Your task to perform on an android device: uninstall "Pandora - Music & Podcasts" Image 0: 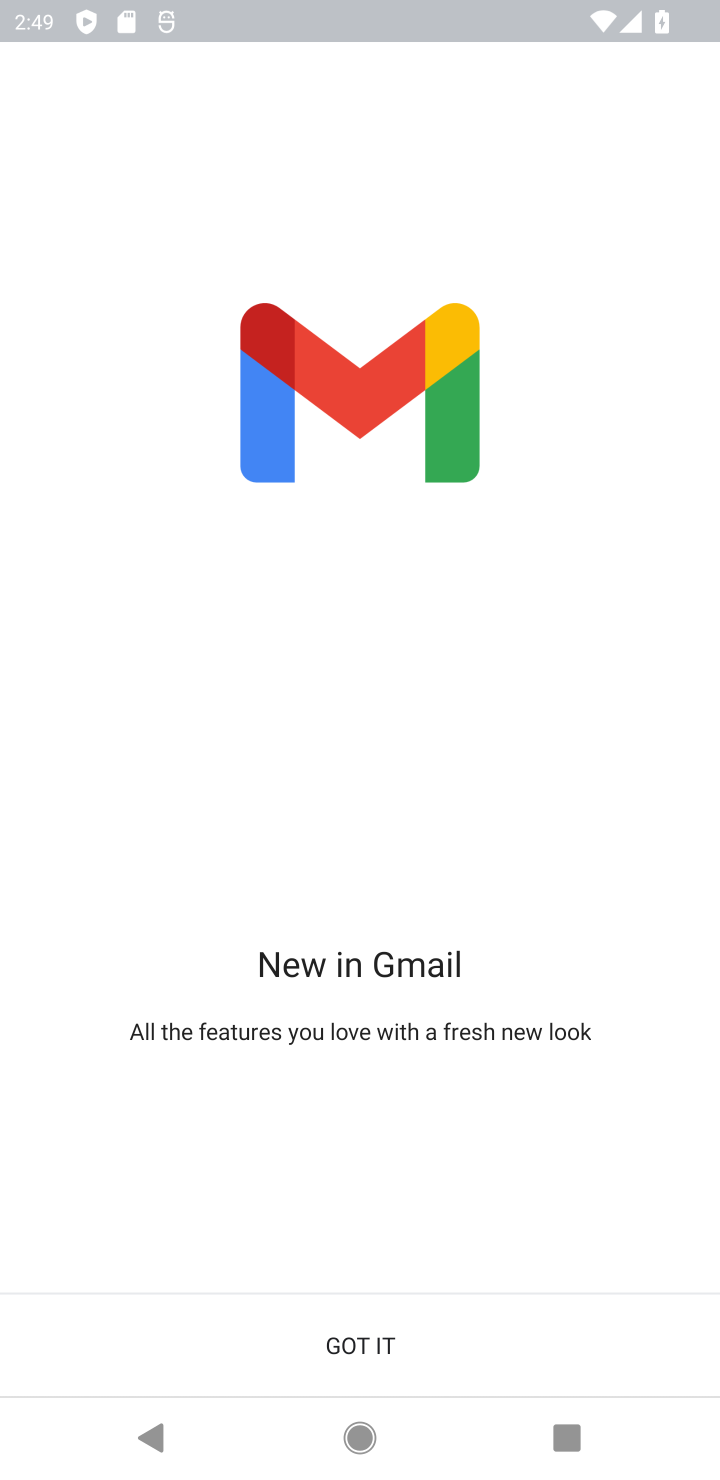
Step 0: press home button
Your task to perform on an android device: uninstall "Pandora - Music & Podcasts" Image 1: 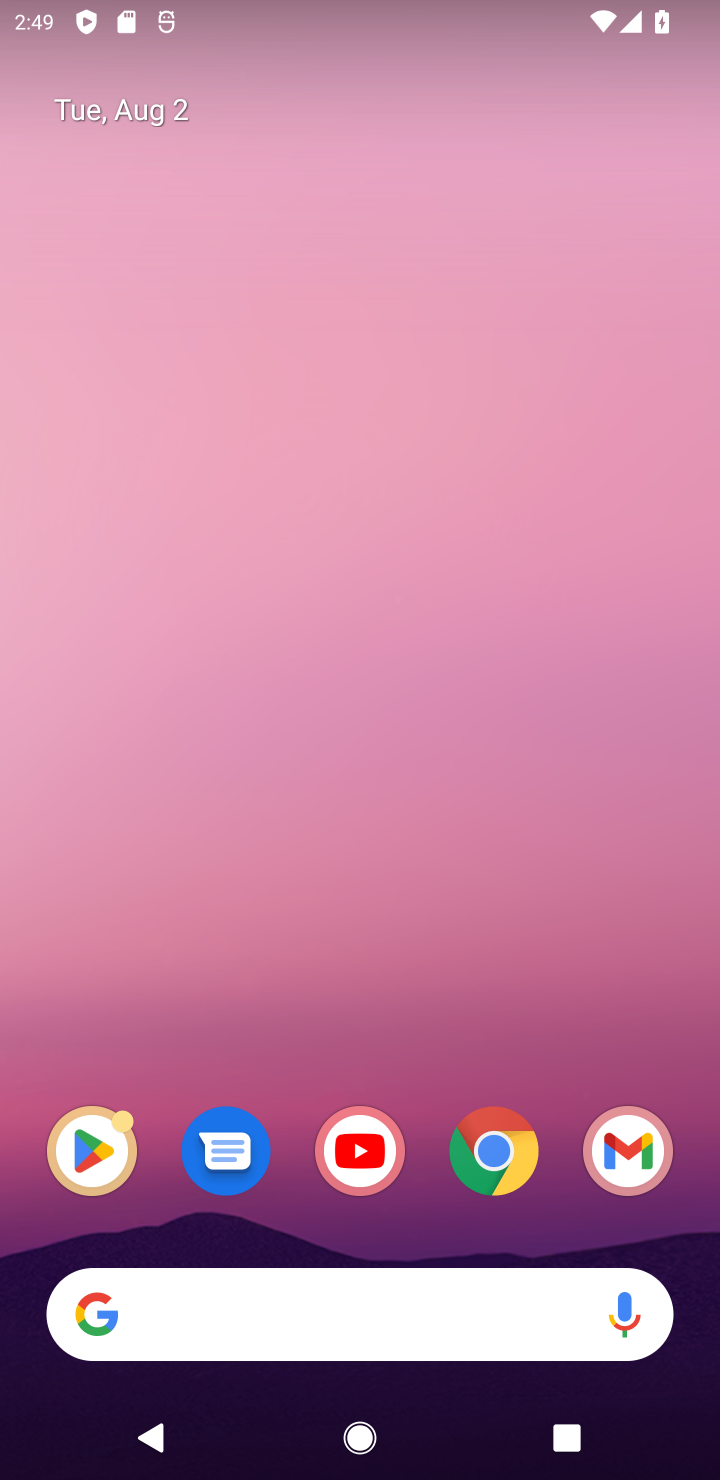
Step 1: drag from (409, 1368) to (387, 333)
Your task to perform on an android device: uninstall "Pandora - Music & Podcasts" Image 2: 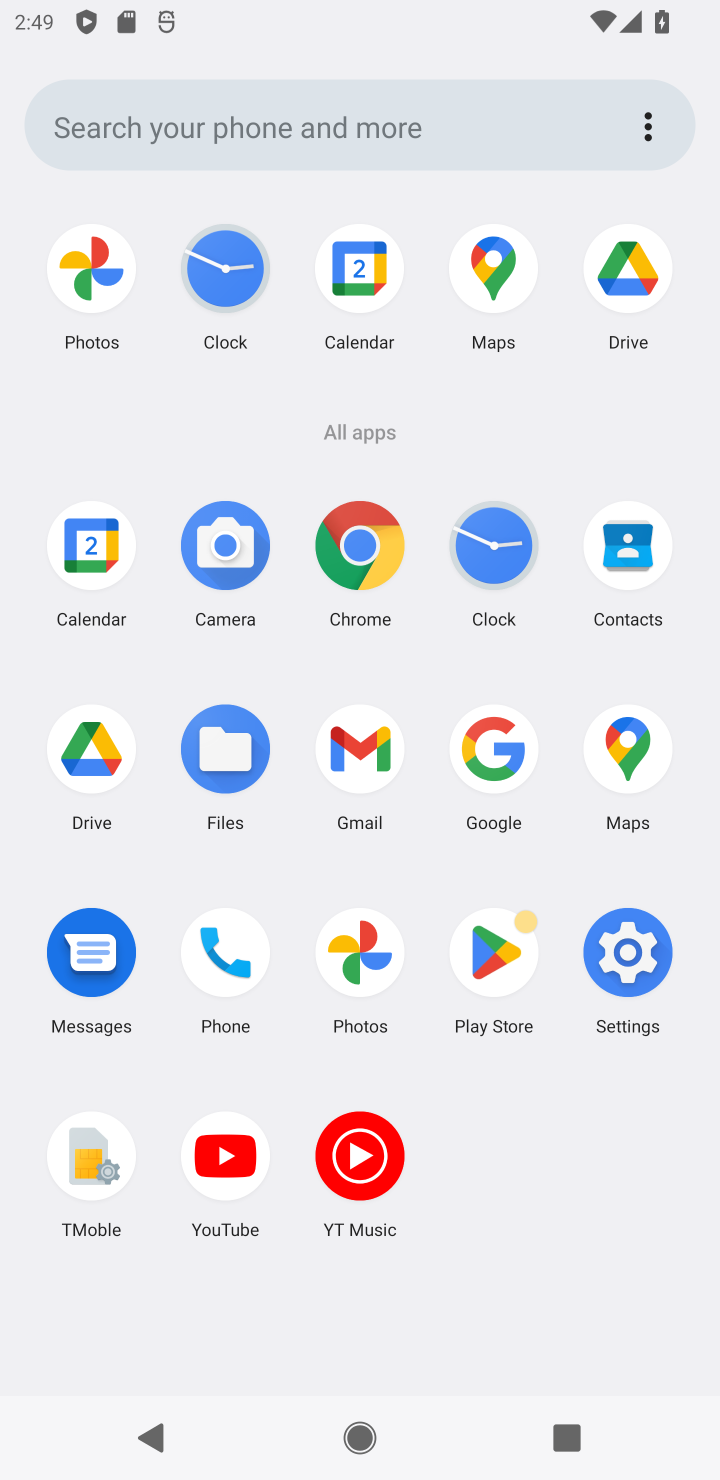
Step 2: click (487, 955)
Your task to perform on an android device: uninstall "Pandora - Music & Podcasts" Image 3: 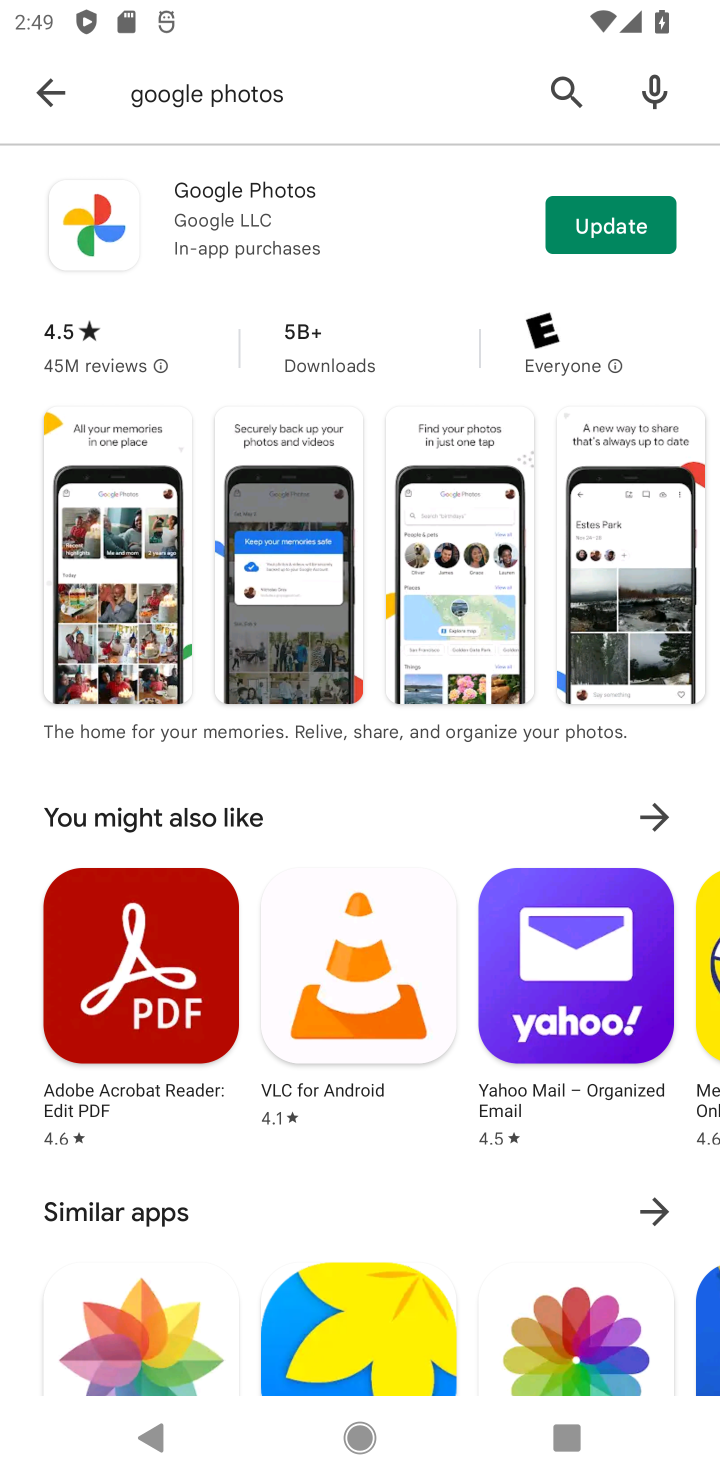
Step 3: click (559, 75)
Your task to perform on an android device: uninstall "Pandora - Music & Podcasts" Image 4: 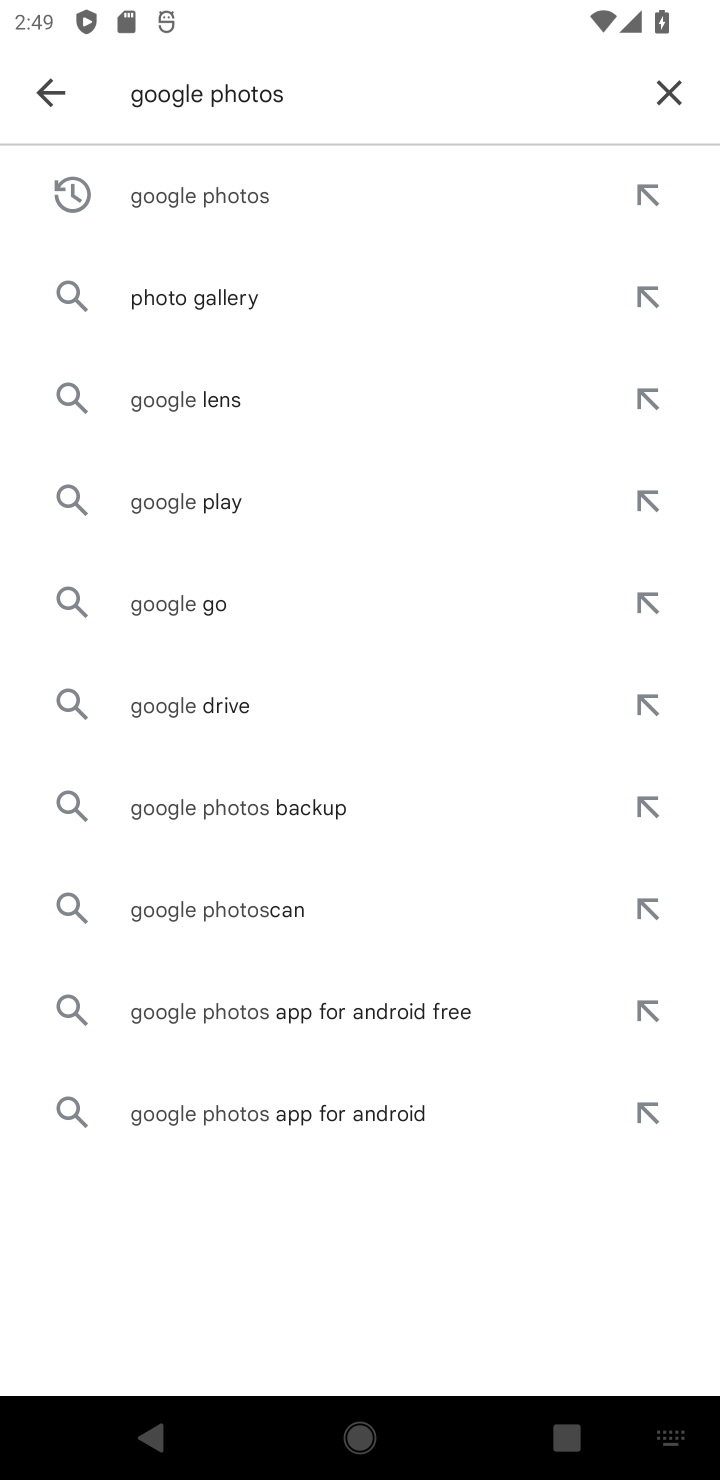
Step 4: click (666, 93)
Your task to perform on an android device: uninstall "Pandora - Music & Podcasts" Image 5: 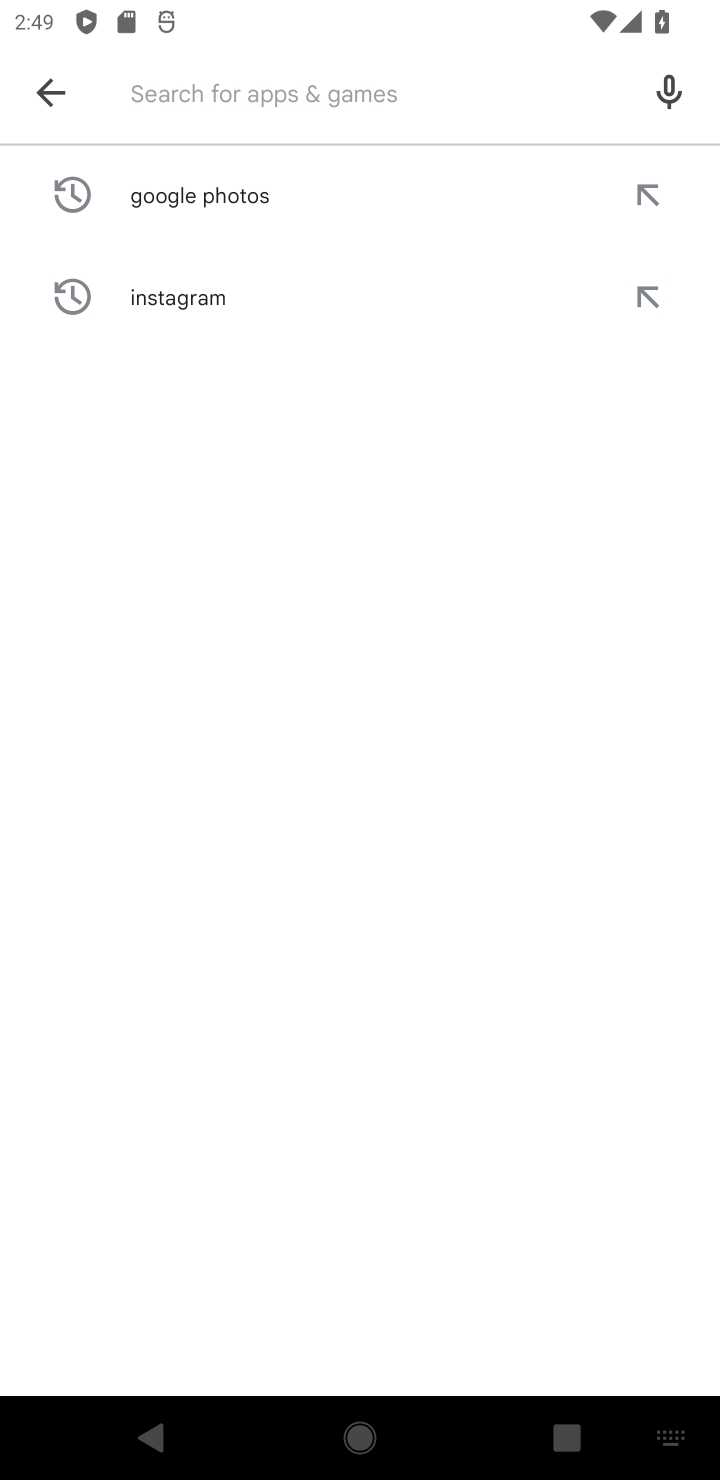
Step 5: type "Pandora - Music & Podcasts"
Your task to perform on an android device: uninstall "Pandora - Music & Podcasts" Image 6: 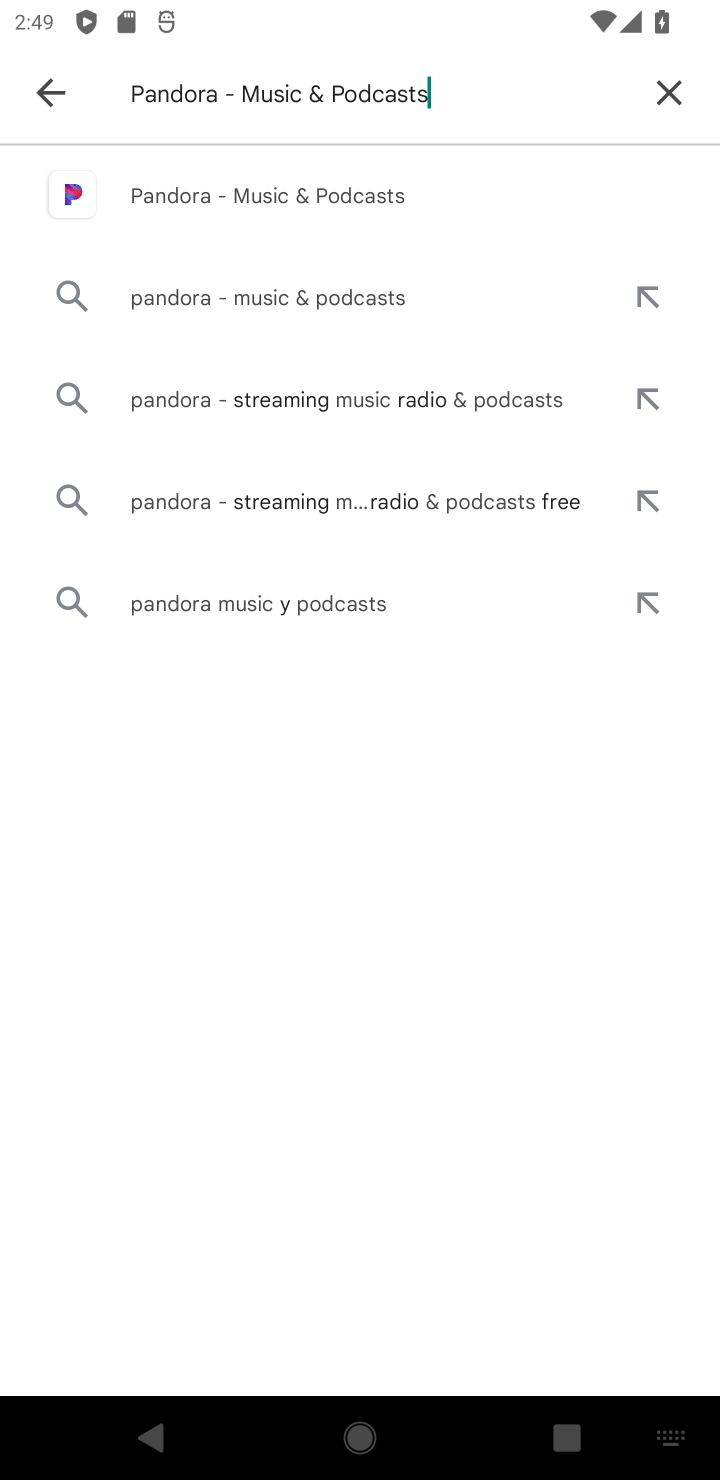
Step 6: click (292, 181)
Your task to perform on an android device: uninstall "Pandora - Music & Podcasts" Image 7: 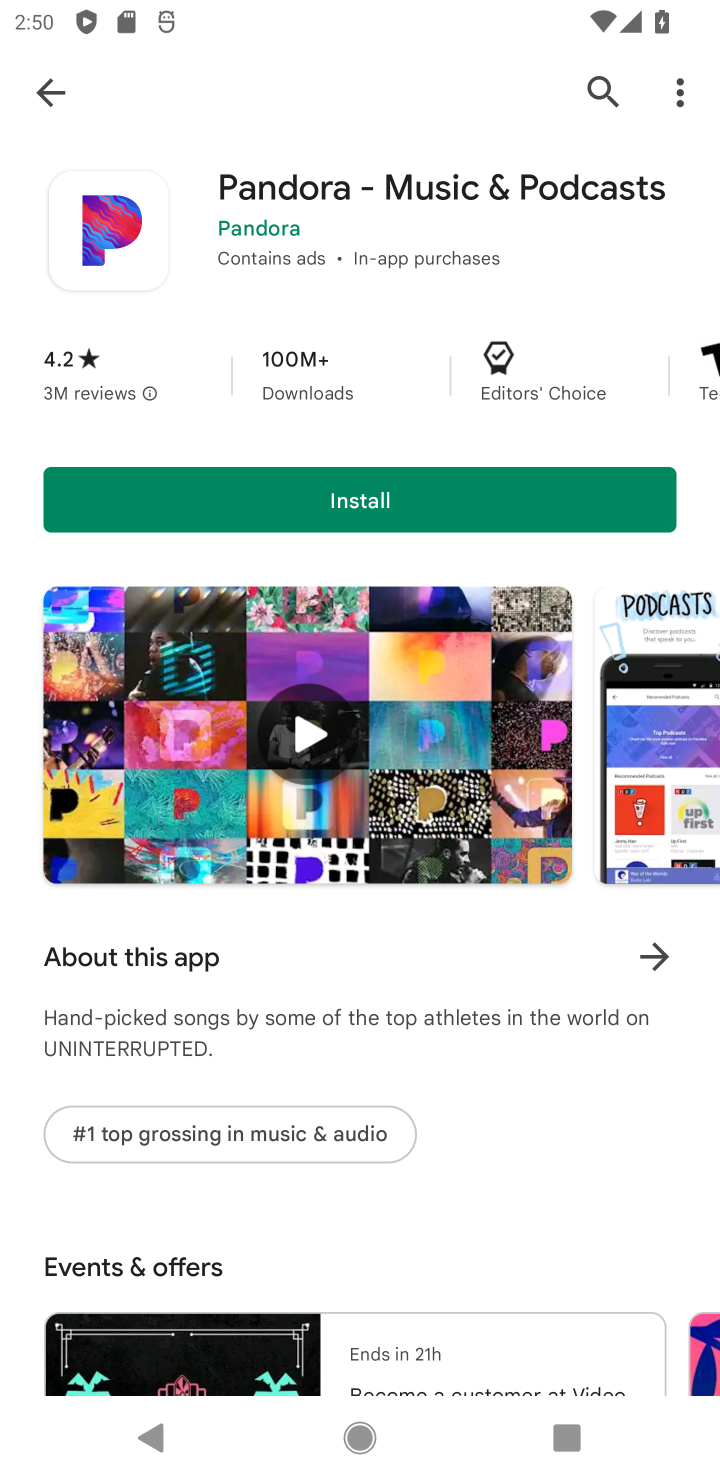
Step 7: task complete